Your task to perform on an android device: toggle notification dots Image 0: 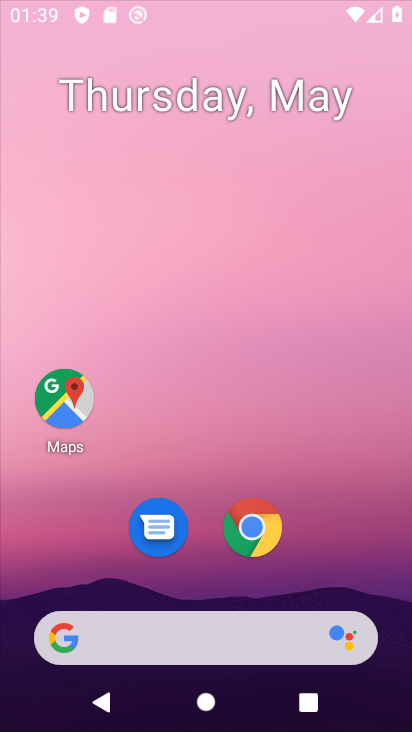
Step 0: click (248, 84)
Your task to perform on an android device: toggle notification dots Image 1: 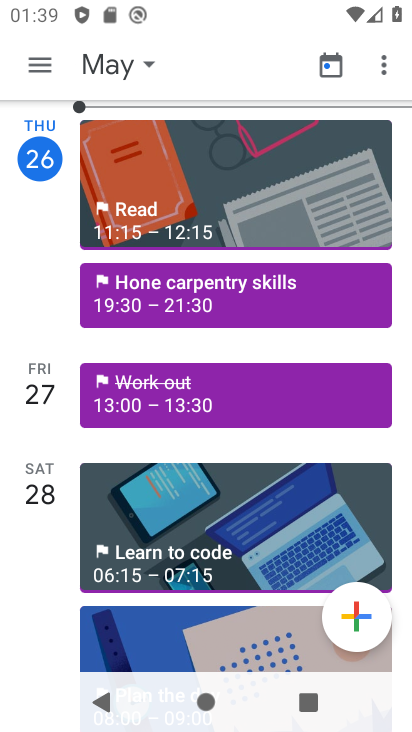
Step 1: press home button
Your task to perform on an android device: toggle notification dots Image 2: 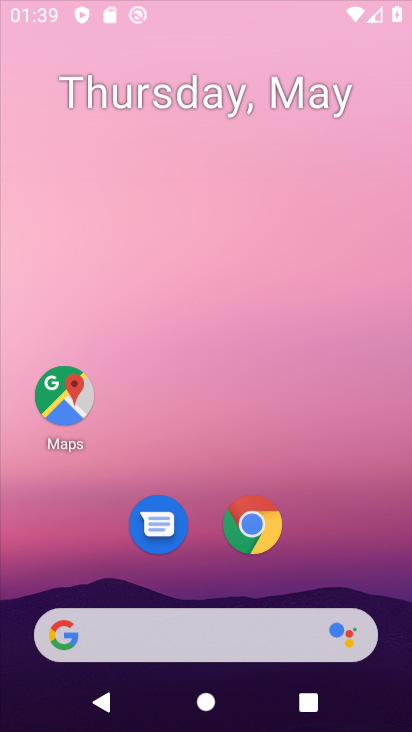
Step 2: drag from (214, 598) to (306, 149)
Your task to perform on an android device: toggle notification dots Image 3: 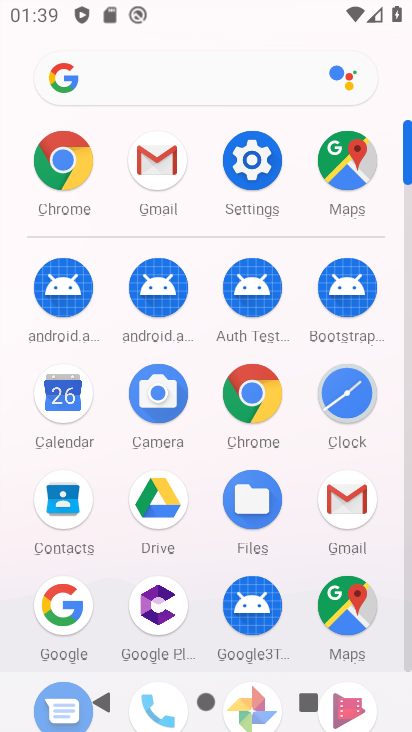
Step 3: click (261, 165)
Your task to perform on an android device: toggle notification dots Image 4: 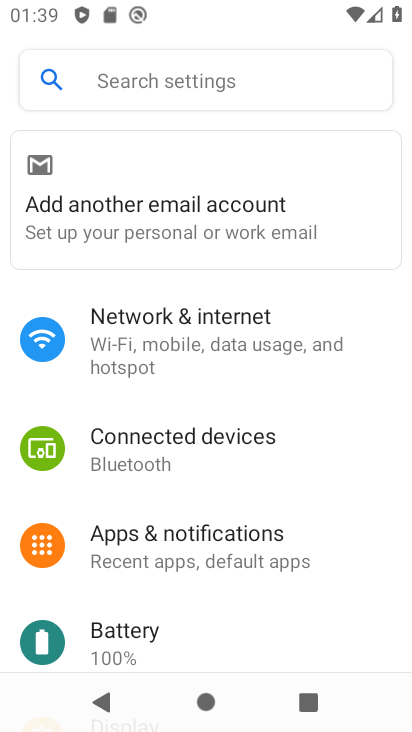
Step 4: click (209, 551)
Your task to perform on an android device: toggle notification dots Image 5: 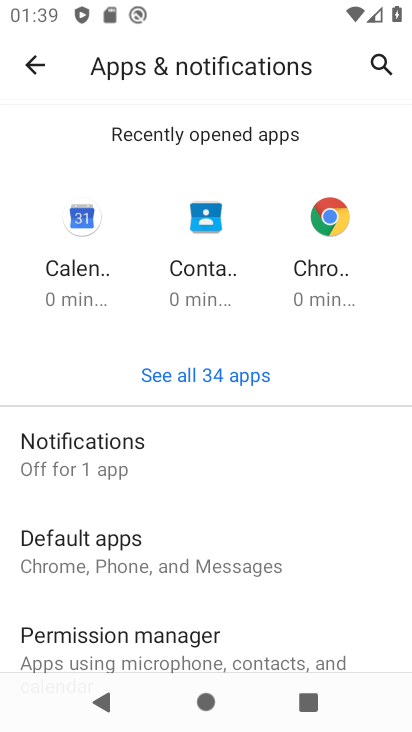
Step 5: click (176, 467)
Your task to perform on an android device: toggle notification dots Image 6: 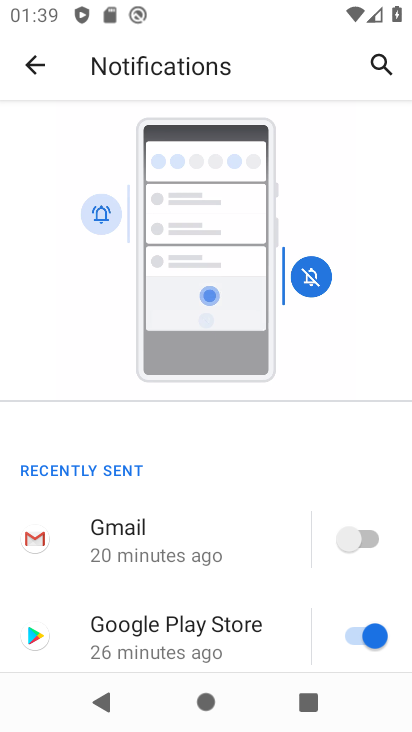
Step 6: drag from (212, 620) to (300, 222)
Your task to perform on an android device: toggle notification dots Image 7: 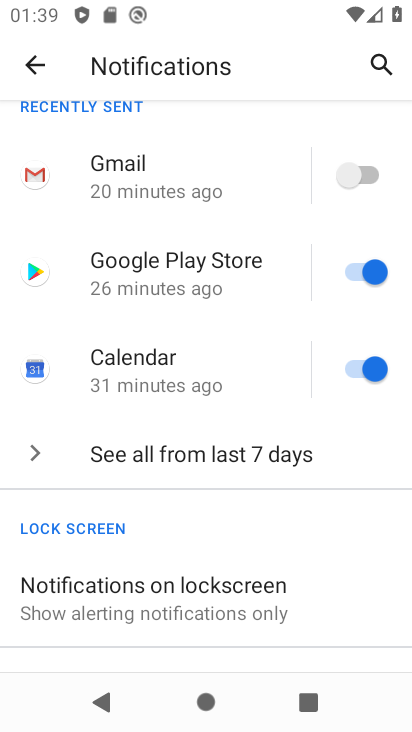
Step 7: drag from (200, 589) to (251, 240)
Your task to perform on an android device: toggle notification dots Image 8: 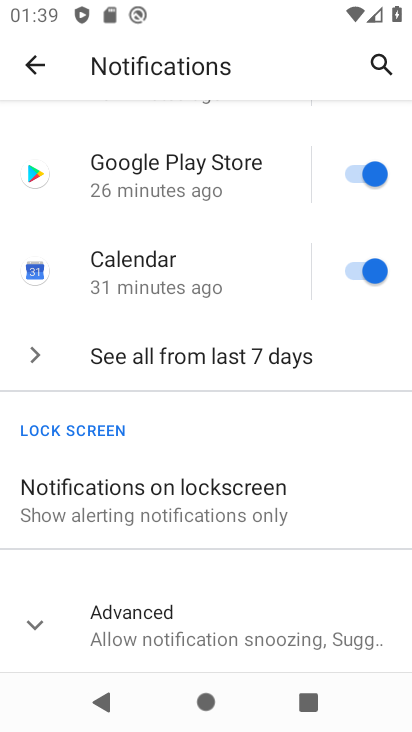
Step 8: click (165, 622)
Your task to perform on an android device: toggle notification dots Image 9: 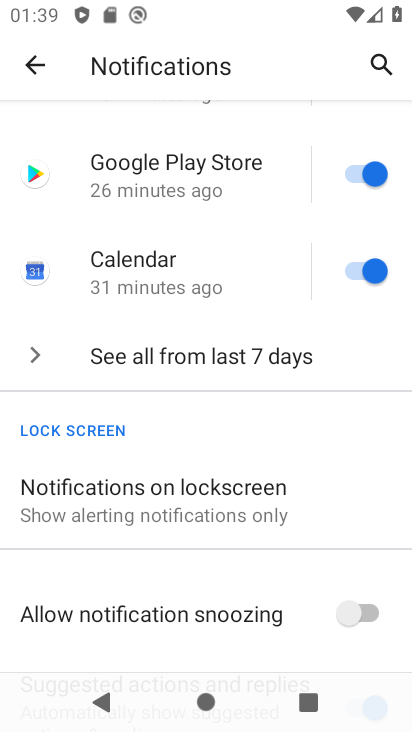
Step 9: drag from (218, 552) to (258, 33)
Your task to perform on an android device: toggle notification dots Image 10: 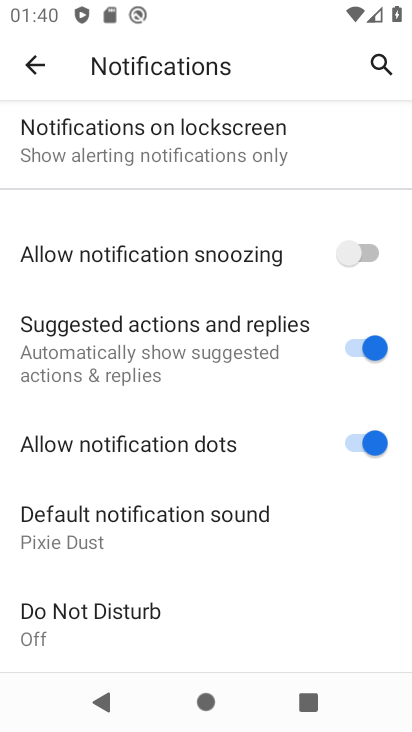
Step 10: click (355, 439)
Your task to perform on an android device: toggle notification dots Image 11: 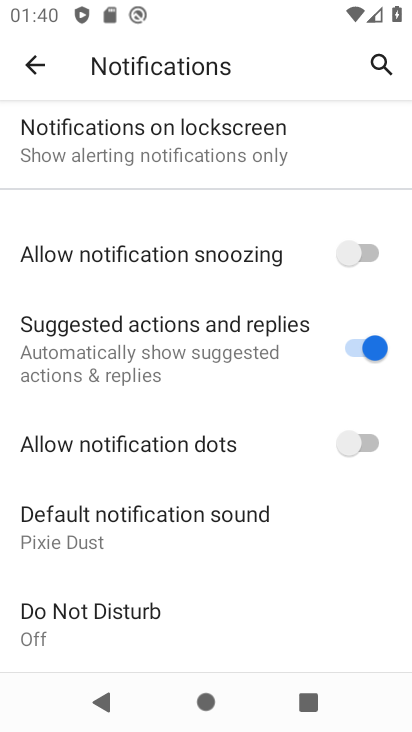
Step 11: task complete